Your task to perform on an android device: delete a single message in the gmail app Image 0: 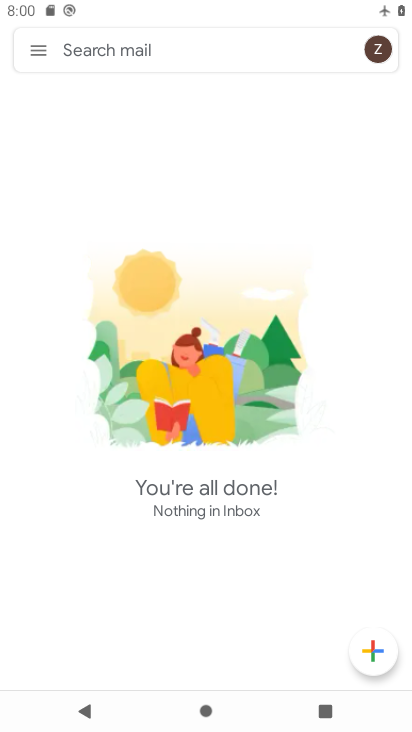
Step 0: press home button
Your task to perform on an android device: delete a single message in the gmail app Image 1: 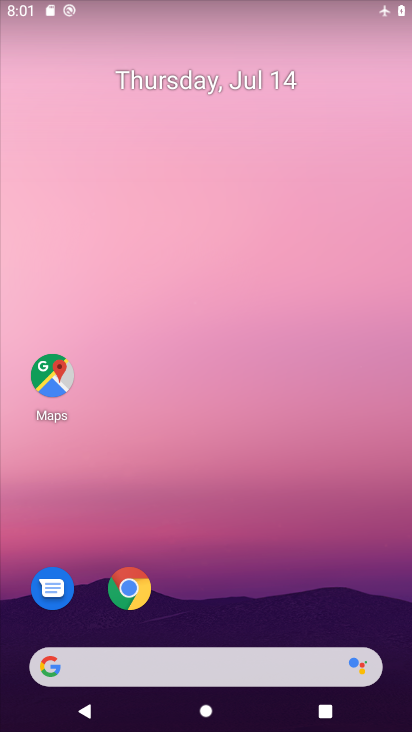
Step 1: drag from (224, 618) to (202, 55)
Your task to perform on an android device: delete a single message in the gmail app Image 2: 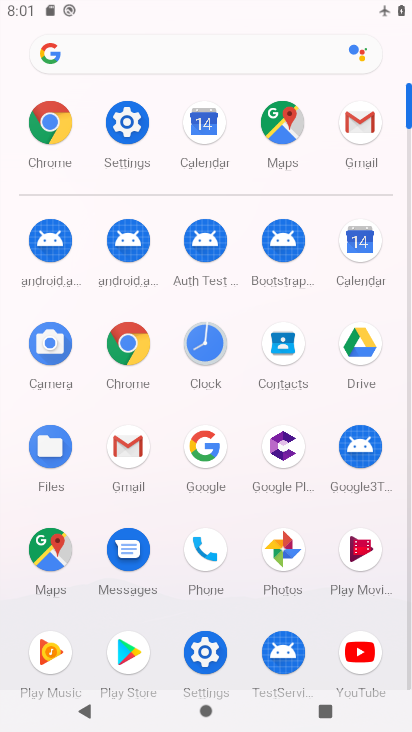
Step 2: click (147, 452)
Your task to perform on an android device: delete a single message in the gmail app Image 3: 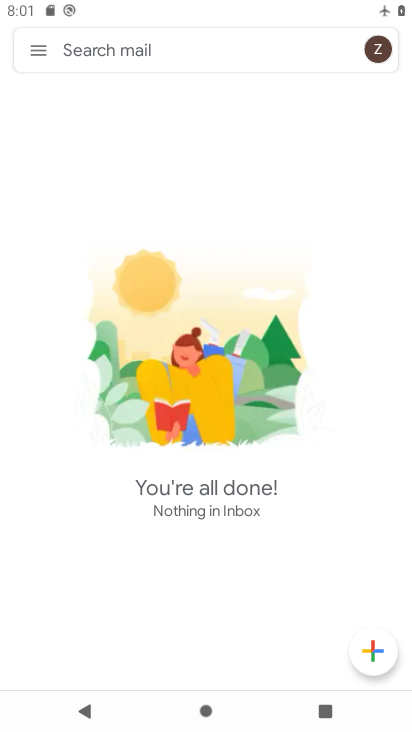
Step 3: task complete